Your task to perform on an android device: open device folders in google photos Image 0: 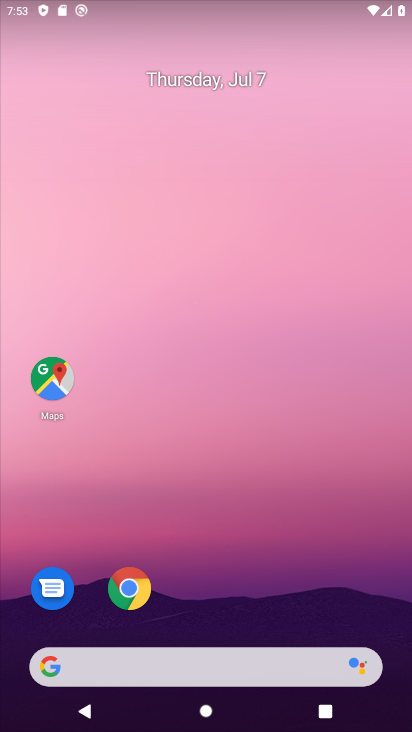
Step 0: drag from (49, 706) to (212, 8)
Your task to perform on an android device: open device folders in google photos Image 1: 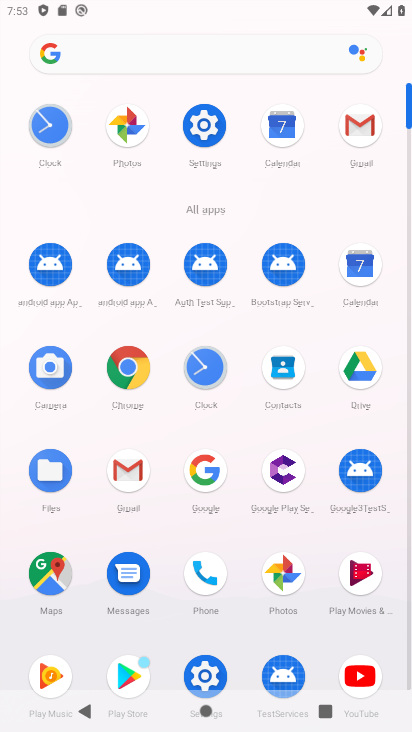
Step 1: click (142, 142)
Your task to perform on an android device: open device folders in google photos Image 2: 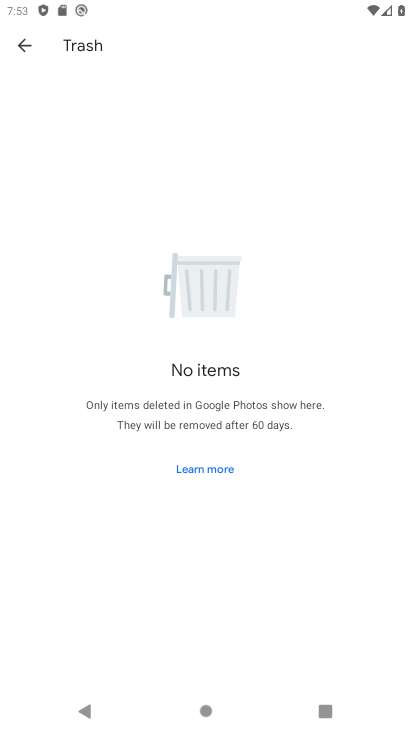
Step 2: click (19, 39)
Your task to perform on an android device: open device folders in google photos Image 3: 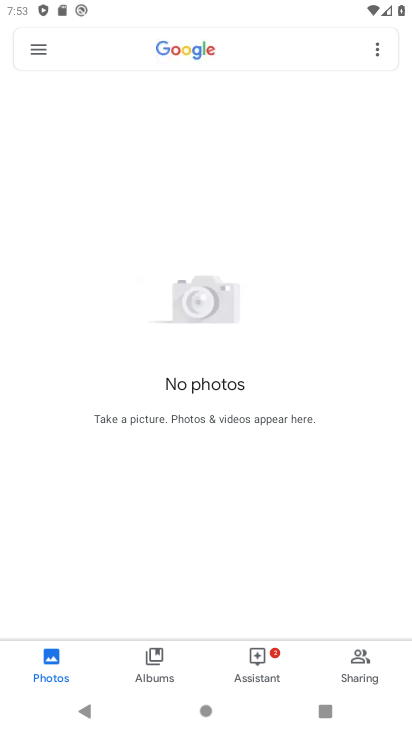
Step 3: click (37, 50)
Your task to perform on an android device: open device folders in google photos Image 4: 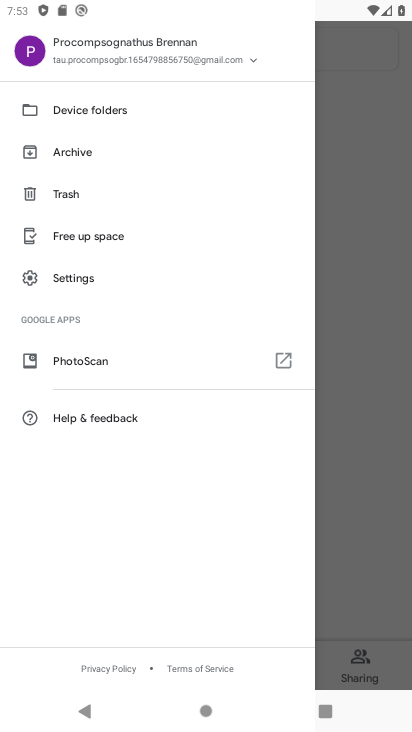
Step 4: click (117, 103)
Your task to perform on an android device: open device folders in google photos Image 5: 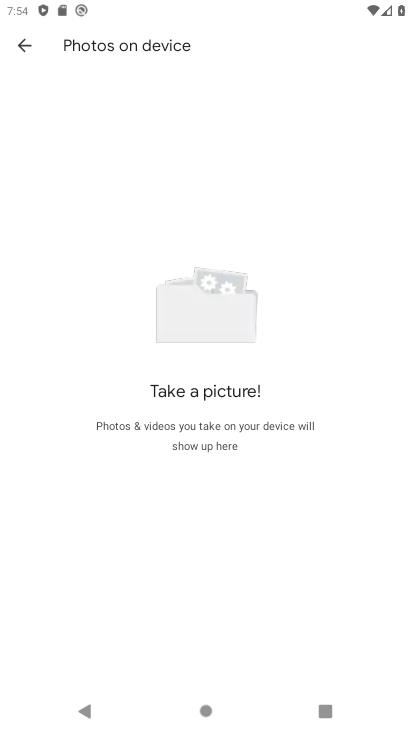
Step 5: task complete